Your task to perform on an android device: Open network settings Image 0: 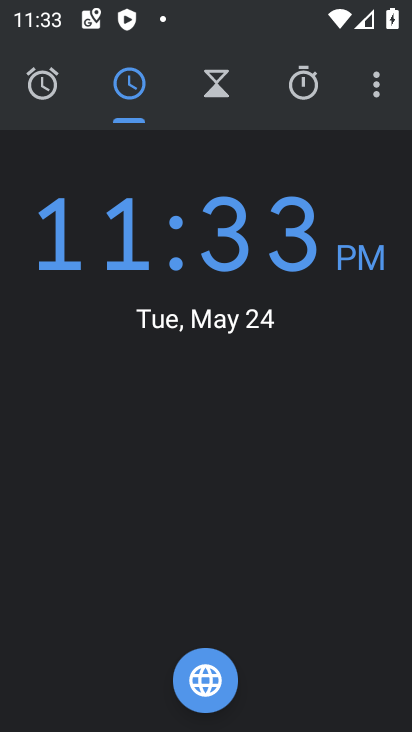
Step 0: press back button
Your task to perform on an android device: Open network settings Image 1: 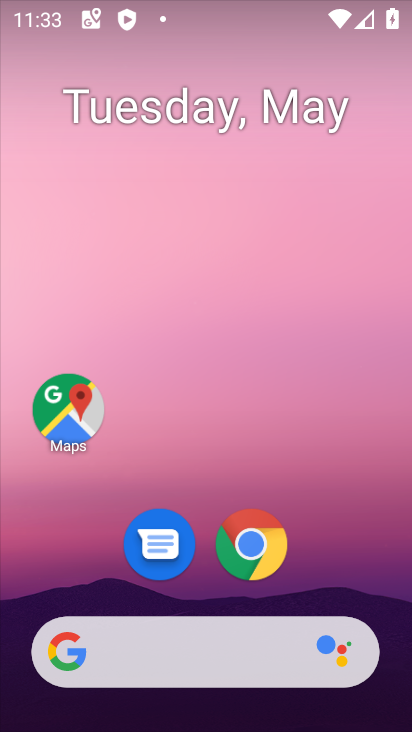
Step 1: drag from (278, 701) to (184, 129)
Your task to perform on an android device: Open network settings Image 2: 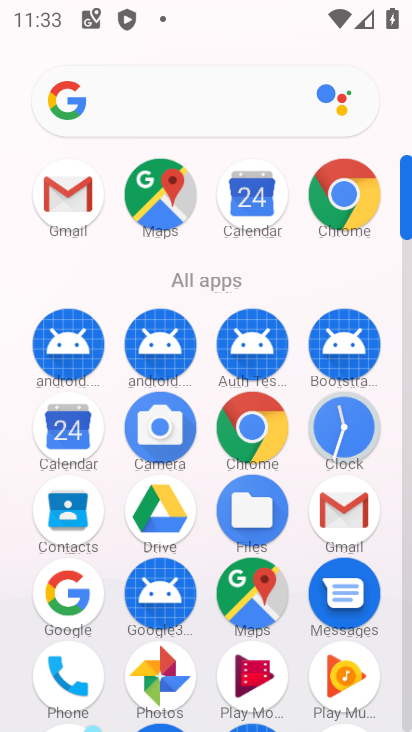
Step 2: drag from (203, 516) to (217, 242)
Your task to perform on an android device: Open network settings Image 3: 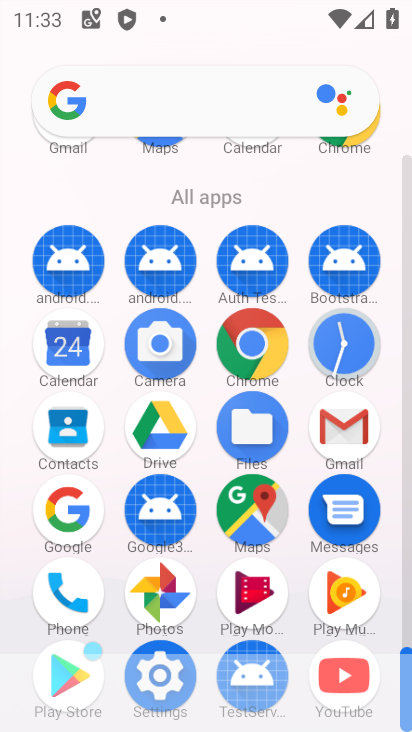
Step 3: drag from (187, 447) to (171, 126)
Your task to perform on an android device: Open network settings Image 4: 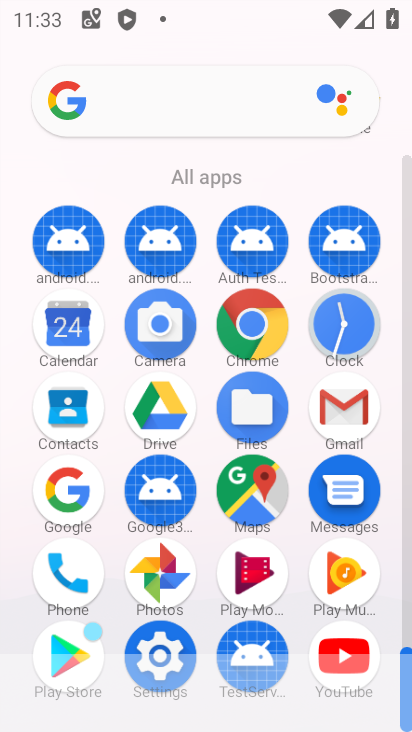
Step 4: drag from (171, 487) to (170, 176)
Your task to perform on an android device: Open network settings Image 5: 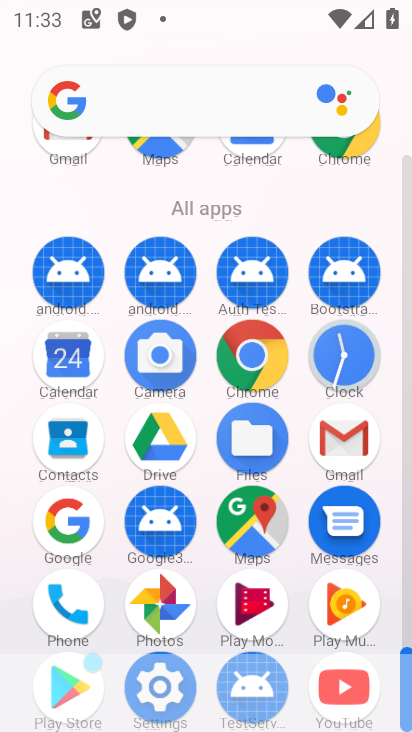
Step 5: drag from (162, 600) to (175, 258)
Your task to perform on an android device: Open network settings Image 6: 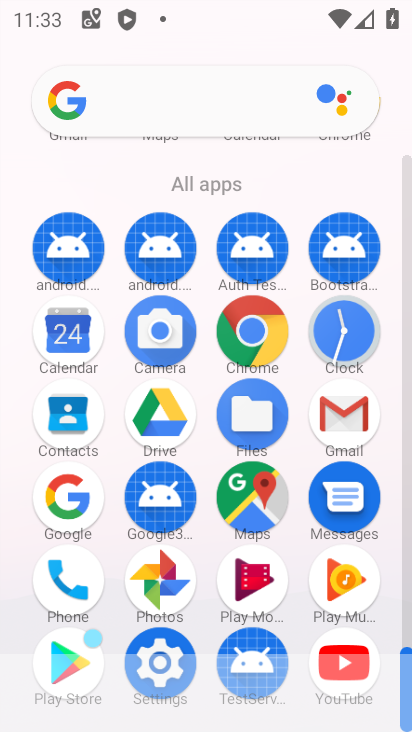
Step 6: drag from (215, 564) to (210, 175)
Your task to perform on an android device: Open network settings Image 7: 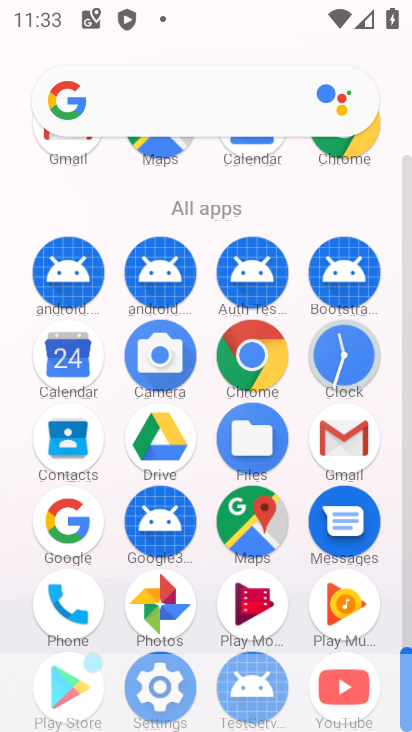
Step 7: drag from (252, 563) to (182, 188)
Your task to perform on an android device: Open network settings Image 8: 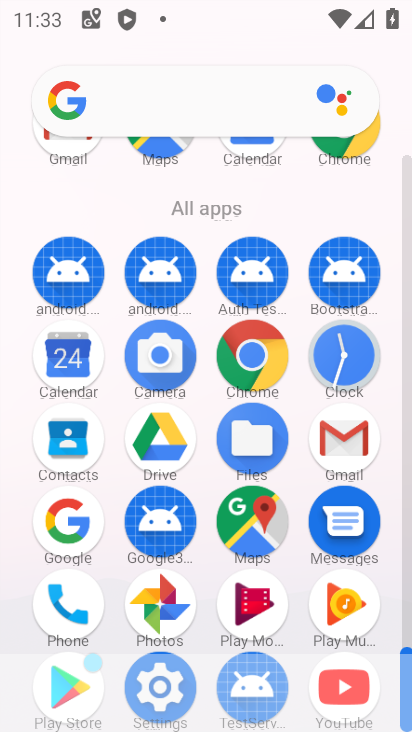
Step 8: drag from (205, 606) to (183, 117)
Your task to perform on an android device: Open network settings Image 9: 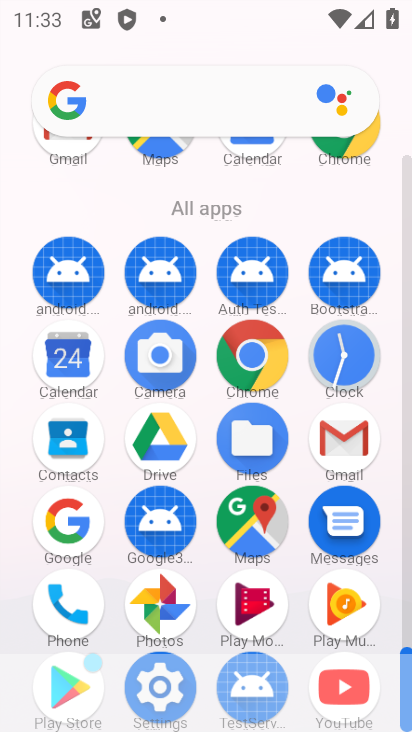
Step 9: drag from (297, 511) to (265, 207)
Your task to perform on an android device: Open network settings Image 10: 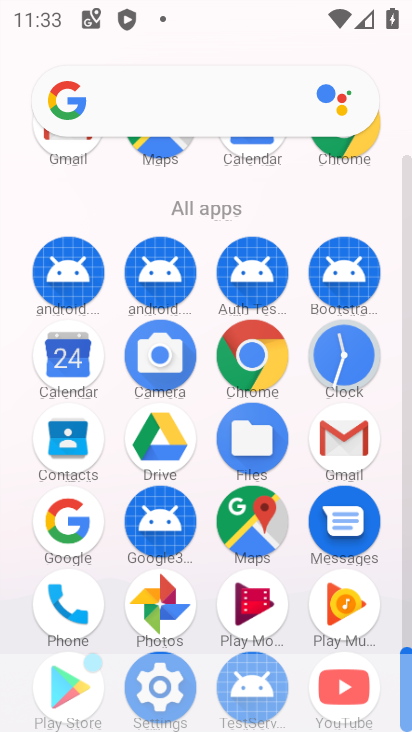
Step 10: drag from (207, 456) to (221, 91)
Your task to perform on an android device: Open network settings Image 11: 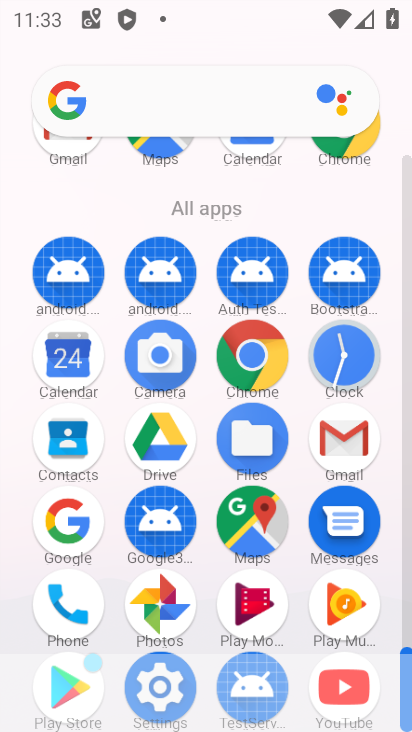
Step 11: drag from (172, 637) to (217, 103)
Your task to perform on an android device: Open network settings Image 12: 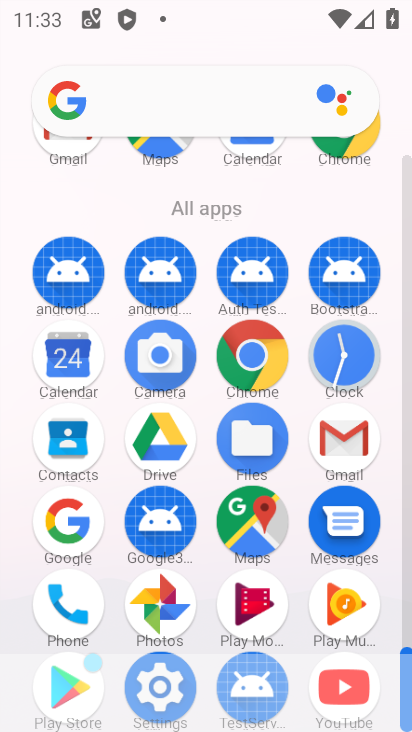
Step 12: drag from (301, 460) to (318, 173)
Your task to perform on an android device: Open network settings Image 13: 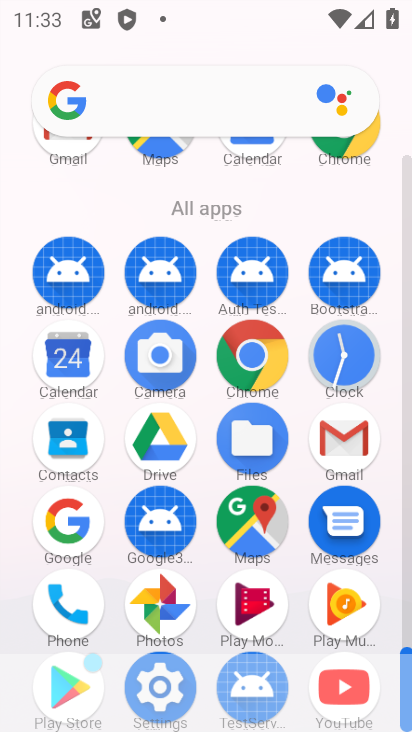
Step 13: click (162, 653)
Your task to perform on an android device: Open network settings Image 14: 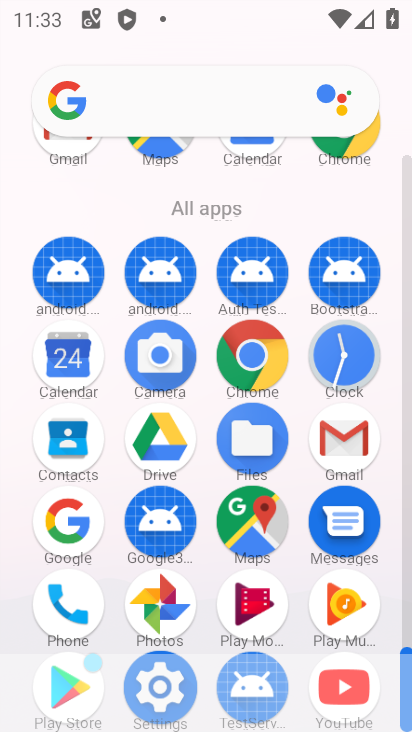
Step 14: click (162, 653)
Your task to perform on an android device: Open network settings Image 15: 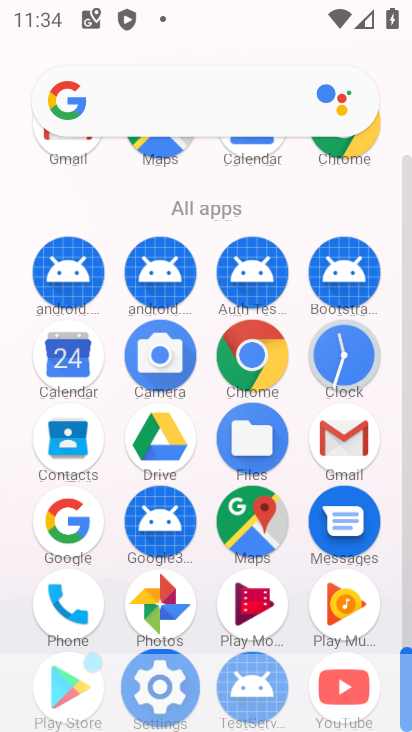
Step 15: click (163, 652)
Your task to perform on an android device: Open network settings Image 16: 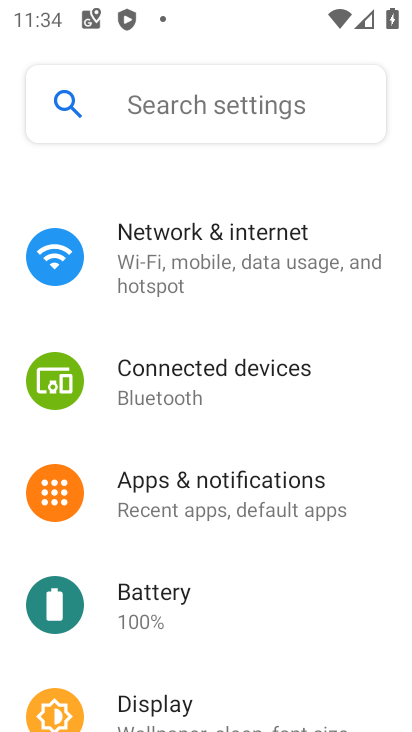
Step 16: click (178, 630)
Your task to perform on an android device: Open network settings Image 17: 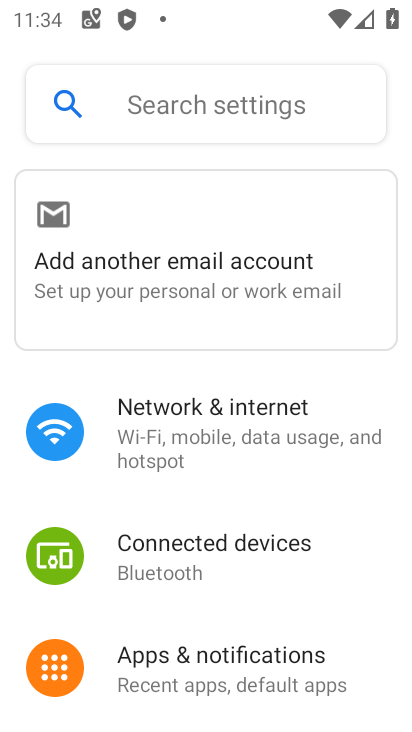
Step 17: click (182, 631)
Your task to perform on an android device: Open network settings Image 18: 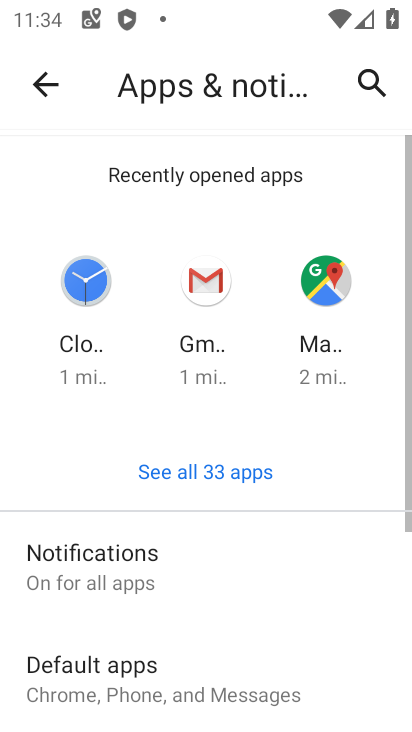
Step 18: click (38, 79)
Your task to perform on an android device: Open network settings Image 19: 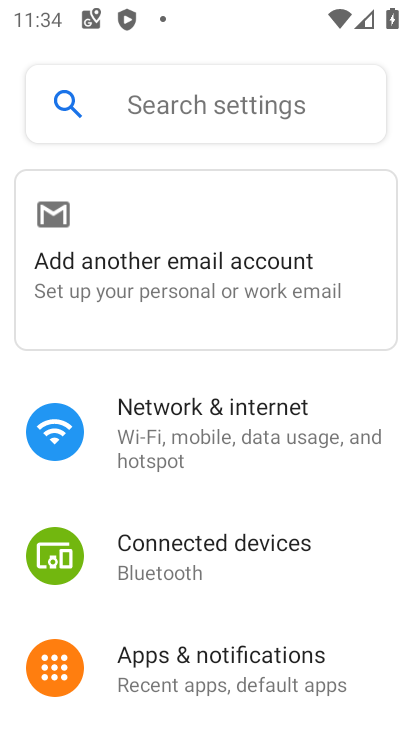
Step 19: click (218, 232)
Your task to perform on an android device: Open network settings Image 20: 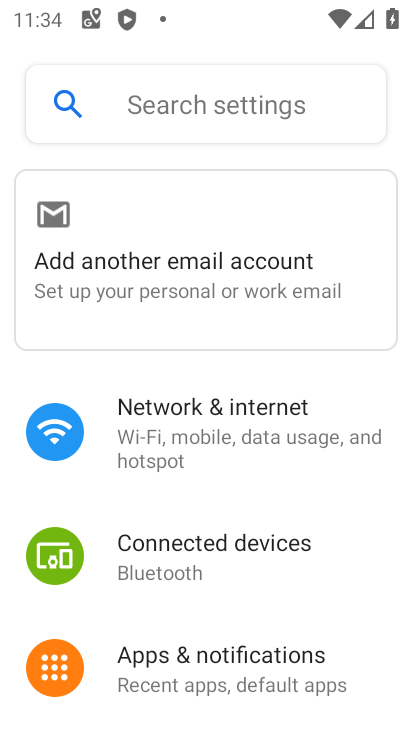
Step 20: click (219, 231)
Your task to perform on an android device: Open network settings Image 21: 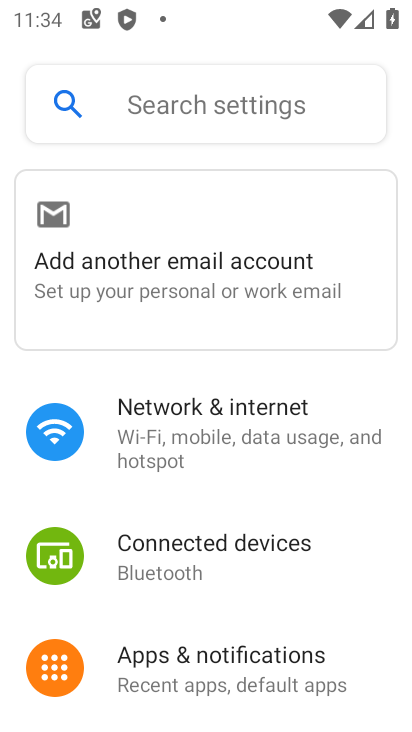
Step 21: click (219, 230)
Your task to perform on an android device: Open network settings Image 22: 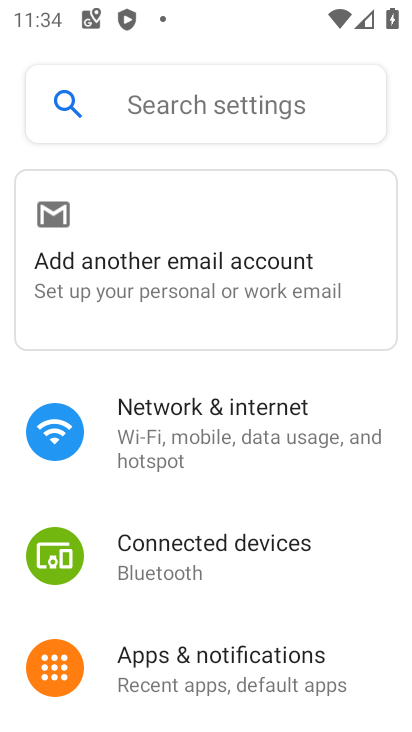
Step 22: click (232, 441)
Your task to perform on an android device: Open network settings Image 23: 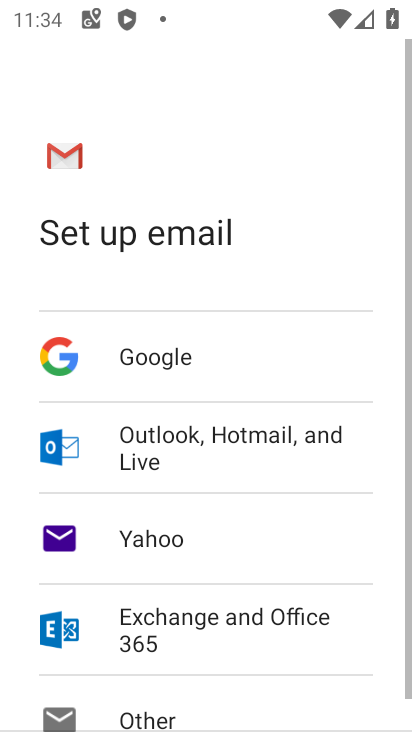
Step 23: click (232, 441)
Your task to perform on an android device: Open network settings Image 24: 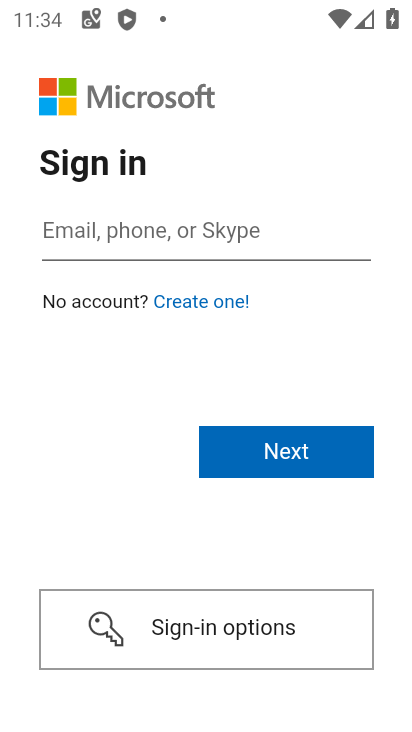
Step 24: task complete